Your task to perform on an android device: turn off notifications settings in the gmail app Image 0: 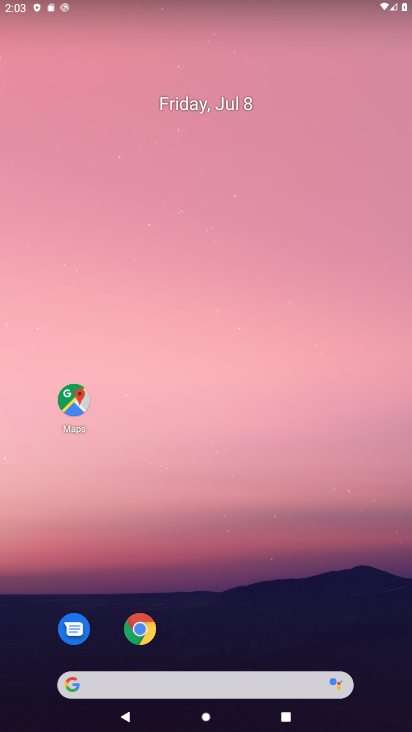
Step 0: drag from (40, 671) to (218, 97)
Your task to perform on an android device: turn off notifications settings in the gmail app Image 1: 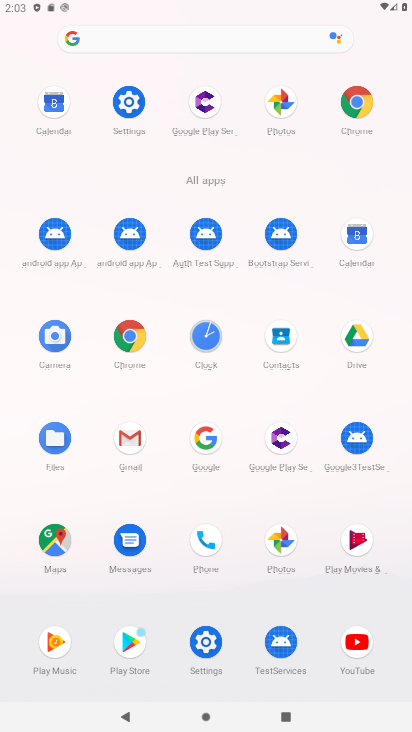
Step 1: click (135, 436)
Your task to perform on an android device: turn off notifications settings in the gmail app Image 2: 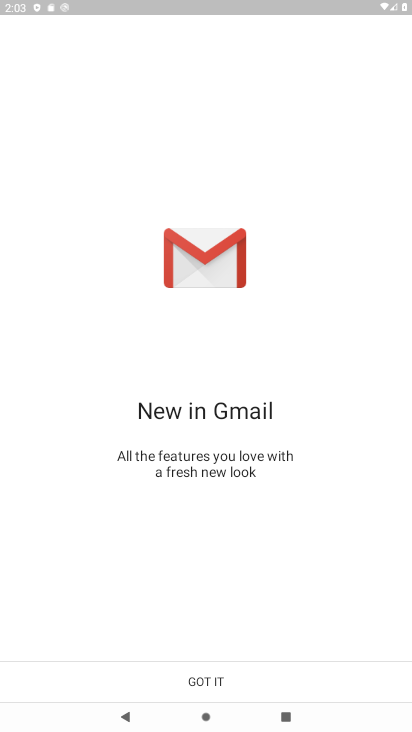
Step 2: click (190, 676)
Your task to perform on an android device: turn off notifications settings in the gmail app Image 3: 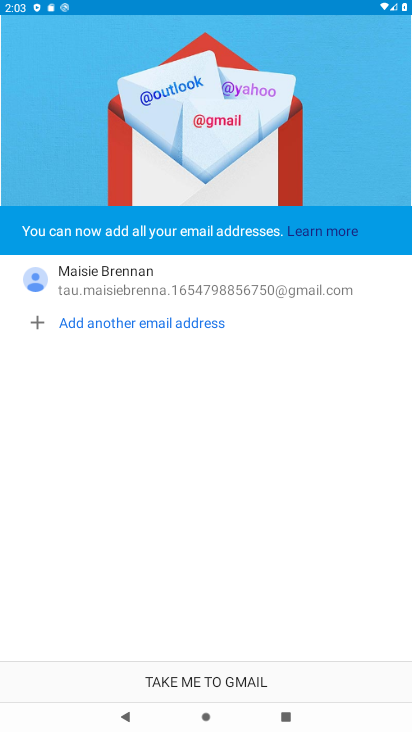
Step 3: click (216, 689)
Your task to perform on an android device: turn off notifications settings in the gmail app Image 4: 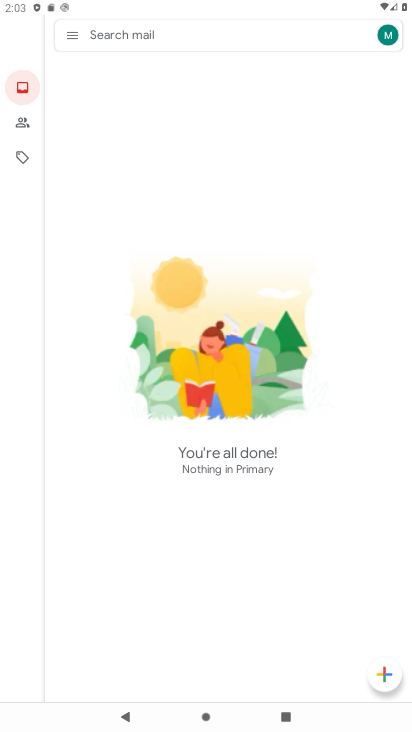
Step 4: click (74, 29)
Your task to perform on an android device: turn off notifications settings in the gmail app Image 5: 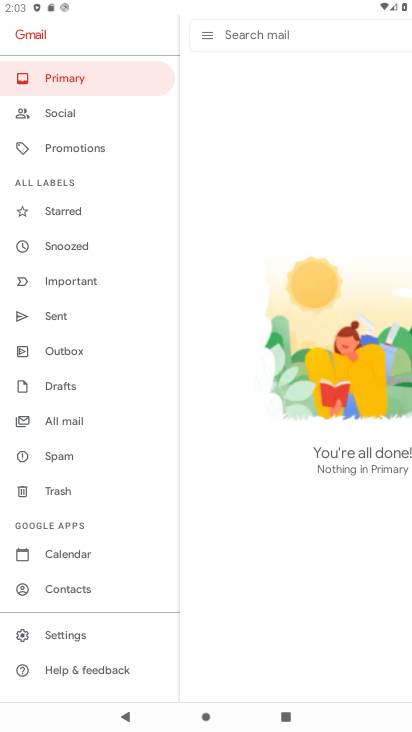
Step 5: click (70, 634)
Your task to perform on an android device: turn off notifications settings in the gmail app Image 6: 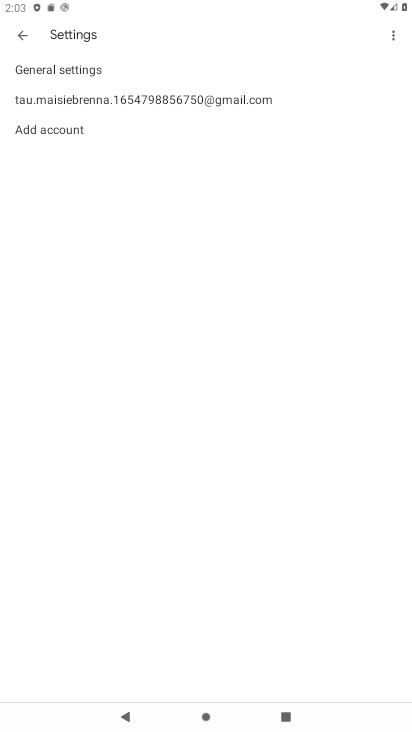
Step 6: click (97, 61)
Your task to perform on an android device: turn off notifications settings in the gmail app Image 7: 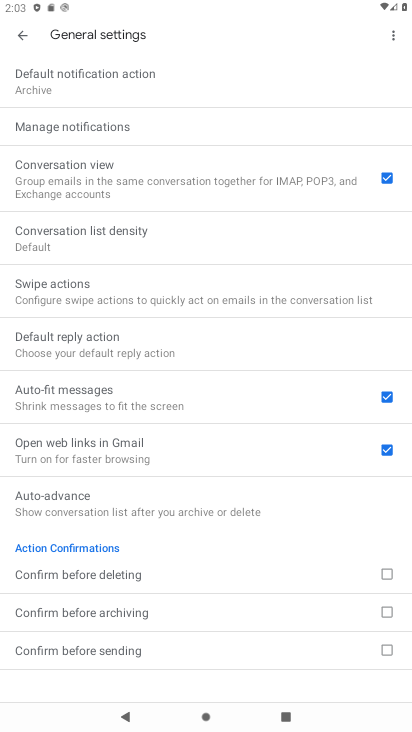
Step 7: click (85, 130)
Your task to perform on an android device: turn off notifications settings in the gmail app Image 8: 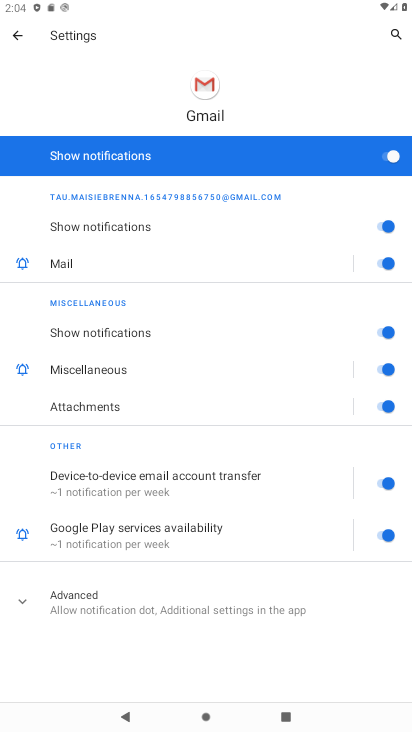
Step 8: click (382, 224)
Your task to perform on an android device: turn off notifications settings in the gmail app Image 9: 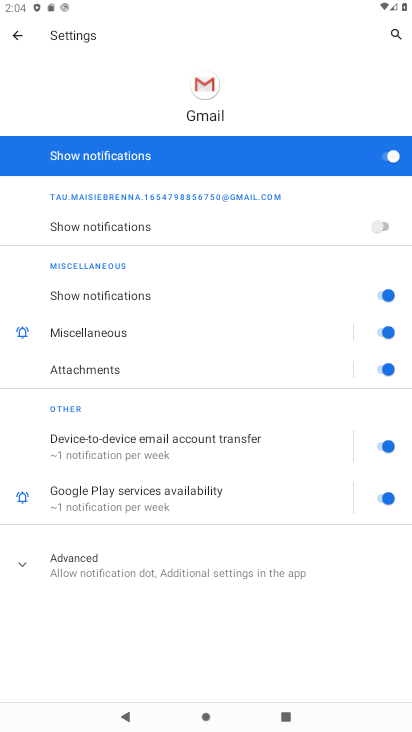
Step 9: task complete